Your task to perform on an android device: turn on improve location accuracy Image 0: 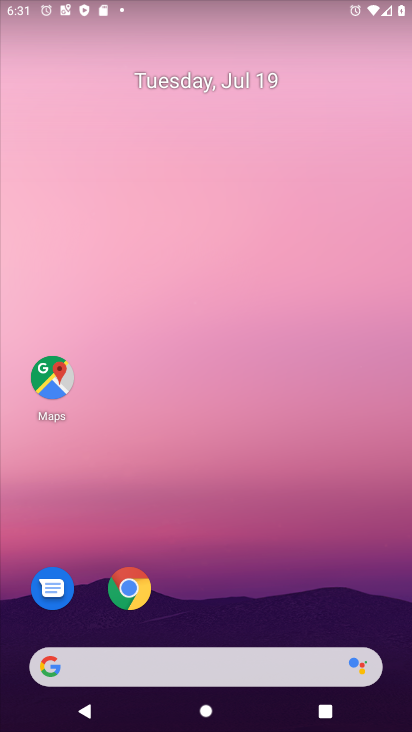
Step 0: drag from (179, 641) to (405, 396)
Your task to perform on an android device: turn on improve location accuracy Image 1: 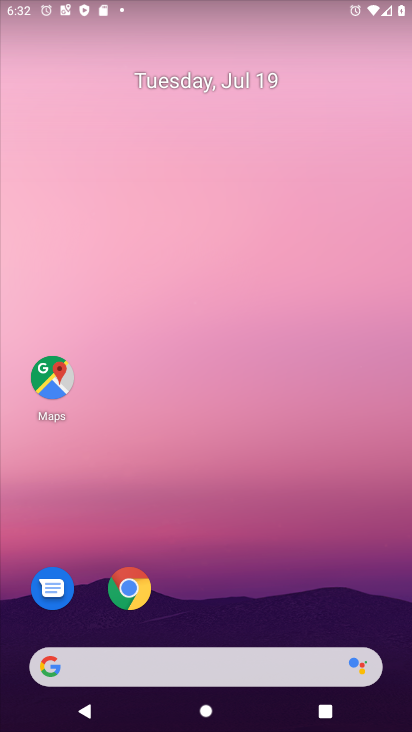
Step 1: click (292, 172)
Your task to perform on an android device: turn on improve location accuracy Image 2: 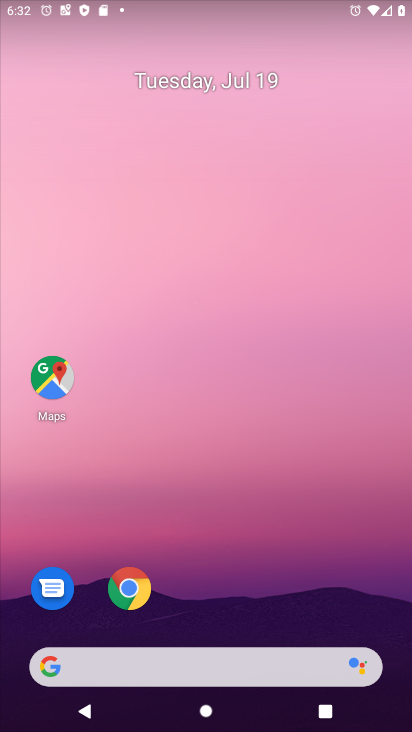
Step 2: click (137, 129)
Your task to perform on an android device: turn on improve location accuracy Image 3: 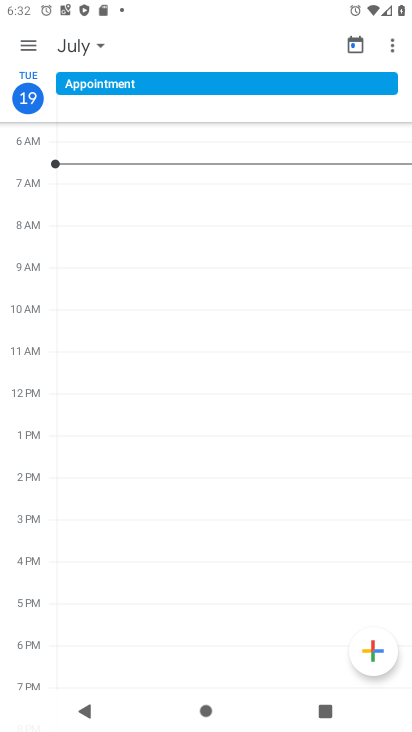
Step 3: press home button
Your task to perform on an android device: turn on improve location accuracy Image 4: 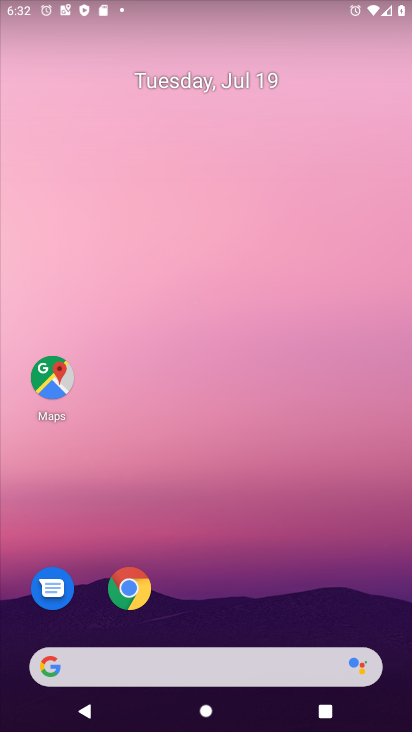
Step 4: drag from (208, 599) to (285, 8)
Your task to perform on an android device: turn on improve location accuracy Image 5: 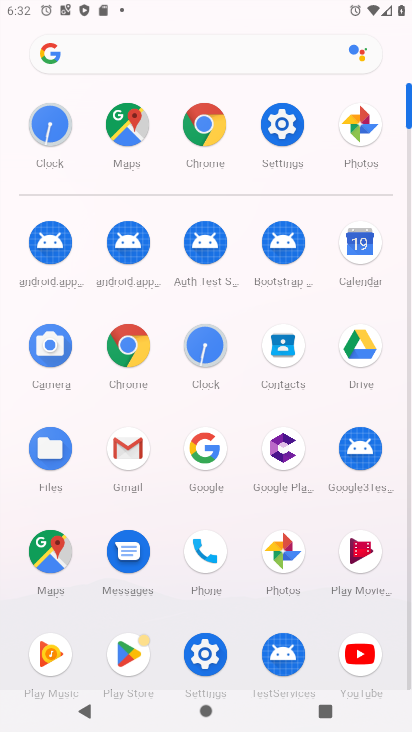
Step 5: click (205, 660)
Your task to perform on an android device: turn on improve location accuracy Image 6: 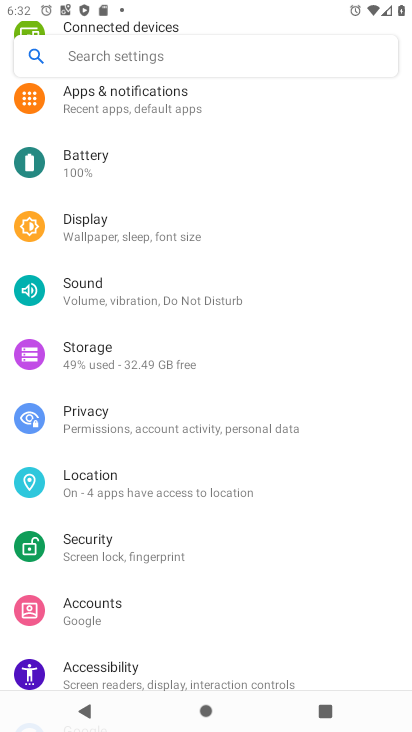
Step 6: click (172, 500)
Your task to perform on an android device: turn on improve location accuracy Image 7: 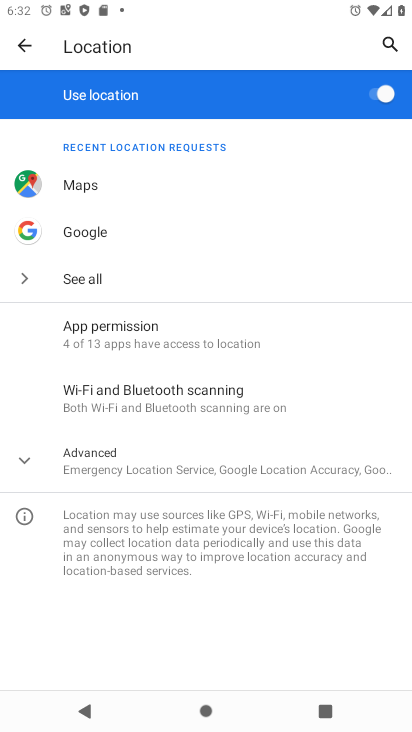
Step 7: click (153, 467)
Your task to perform on an android device: turn on improve location accuracy Image 8: 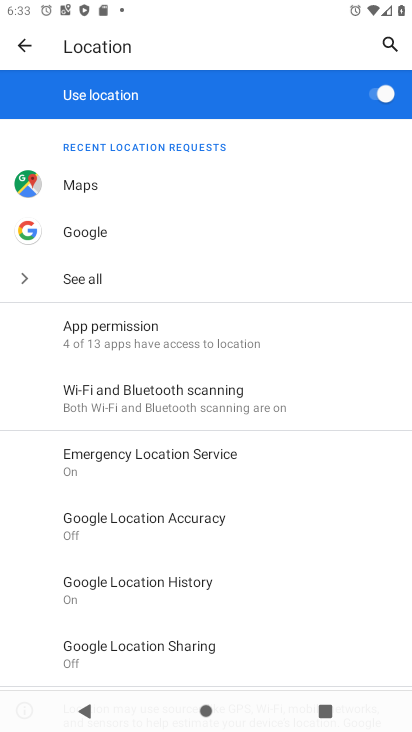
Step 8: click (233, 532)
Your task to perform on an android device: turn on improve location accuracy Image 9: 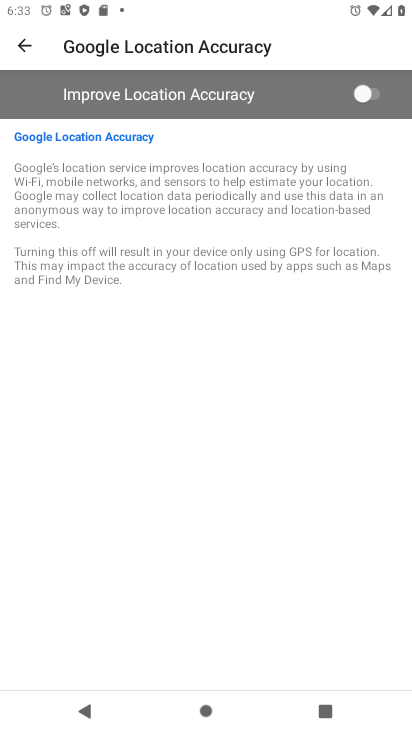
Step 9: click (364, 99)
Your task to perform on an android device: turn on improve location accuracy Image 10: 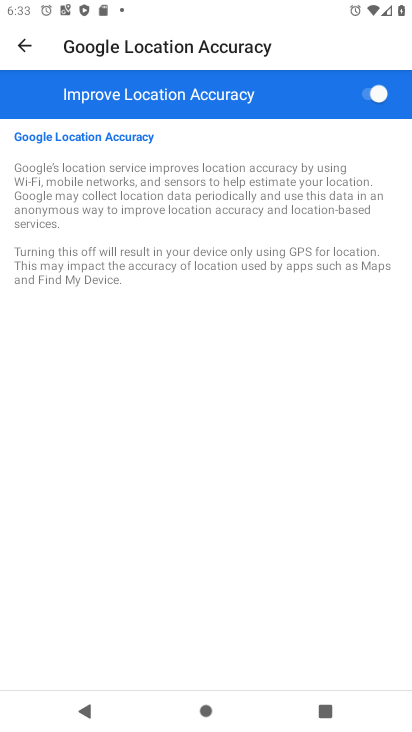
Step 10: task complete